Your task to perform on an android device: stop showing notifications on the lock screen Image 0: 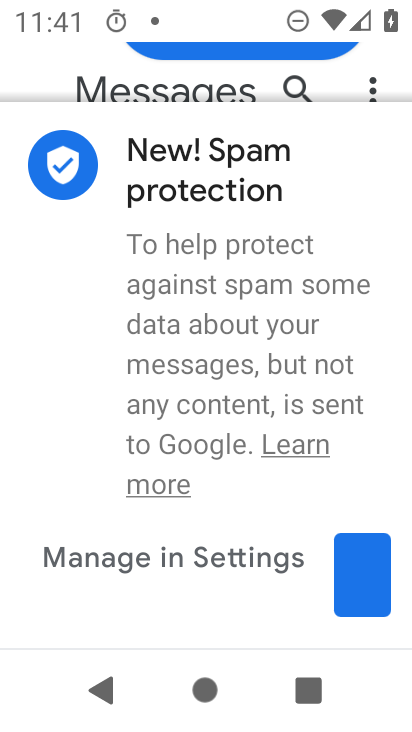
Step 0: press back button
Your task to perform on an android device: stop showing notifications on the lock screen Image 1: 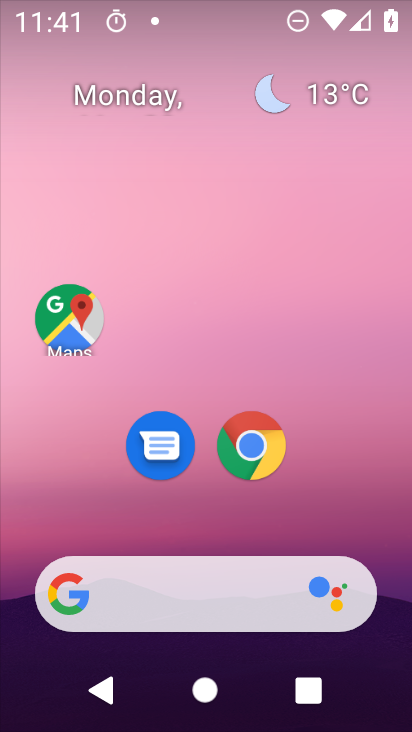
Step 1: drag from (214, 541) to (237, 155)
Your task to perform on an android device: stop showing notifications on the lock screen Image 2: 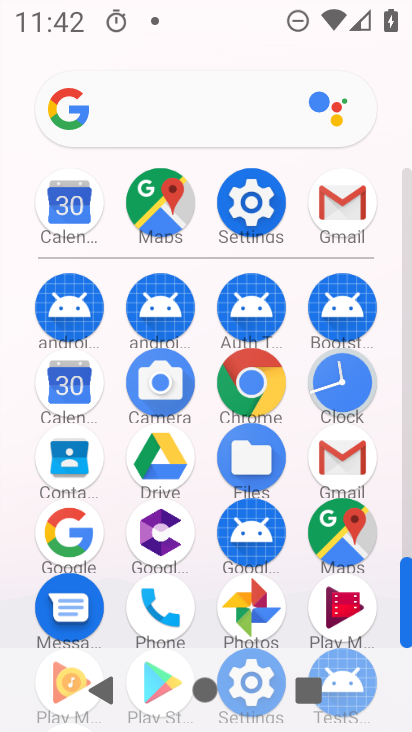
Step 2: click (263, 197)
Your task to perform on an android device: stop showing notifications on the lock screen Image 3: 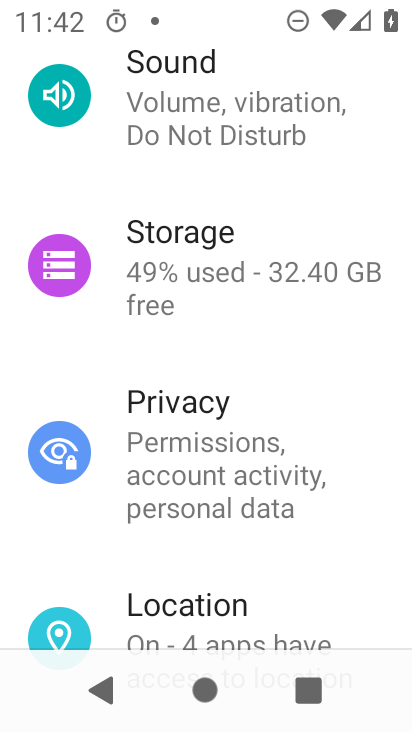
Step 3: drag from (279, 119) to (253, 626)
Your task to perform on an android device: stop showing notifications on the lock screen Image 4: 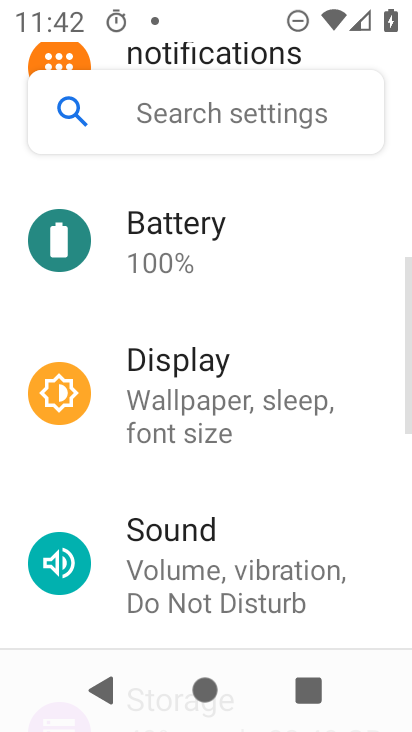
Step 4: drag from (248, 216) to (244, 703)
Your task to perform on an android device: stop showing notifications on the lock screen Image 5: 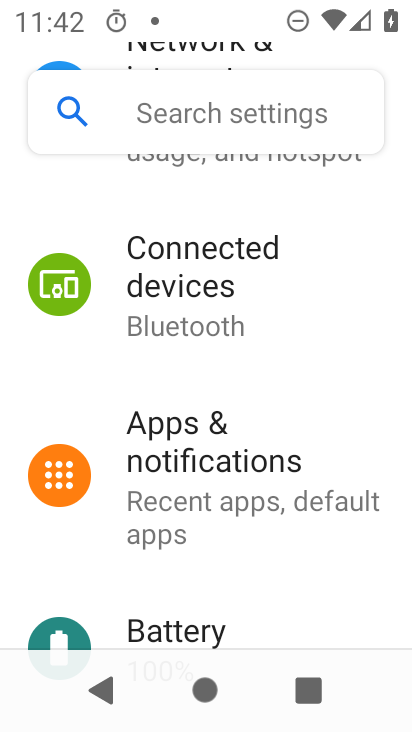
Step 5: click (220, 488)
Your task to perform on an android device: stop showing notifications on the lock screen Image 6: 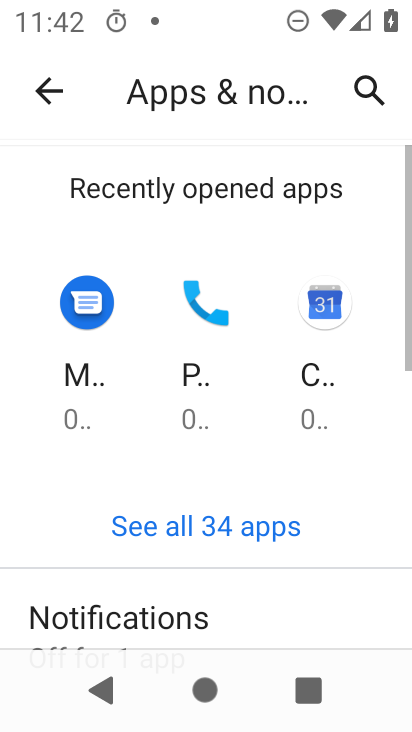
Step 6: drag from (180, 590) to (296, 91)
Your task to perform on an android device: stop showing notifications on the lock screen Image 7: 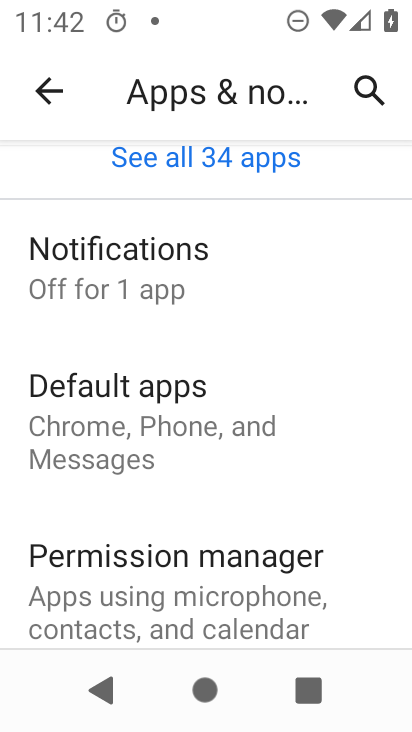
Step 7: drag from (195, 577) to (232, 684)
Your task to perform on an android device: stop showing notifications on the lock screen Image 8: 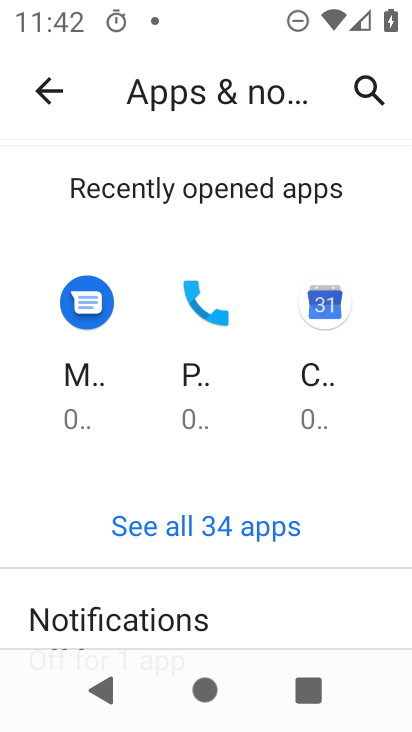
Step 8: click (195, 628)
Your task to perform on an android device: stop showing notifications on the lock screen Image 9: 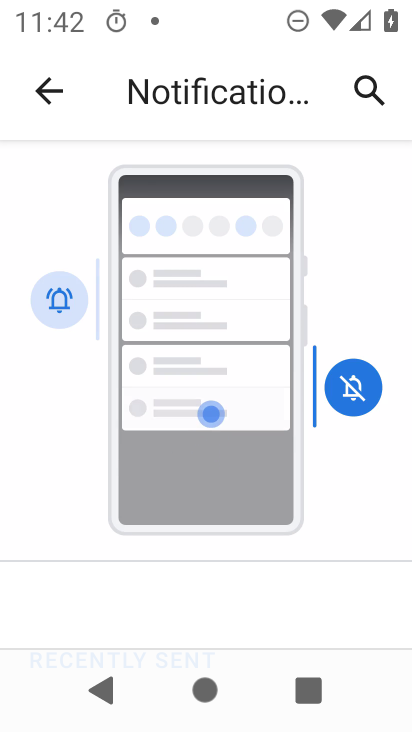
Step 9: drag from (189, 585) to (354, 112)
Your task to perform on an android device: stop showing notifications on the lock screen Image 10: 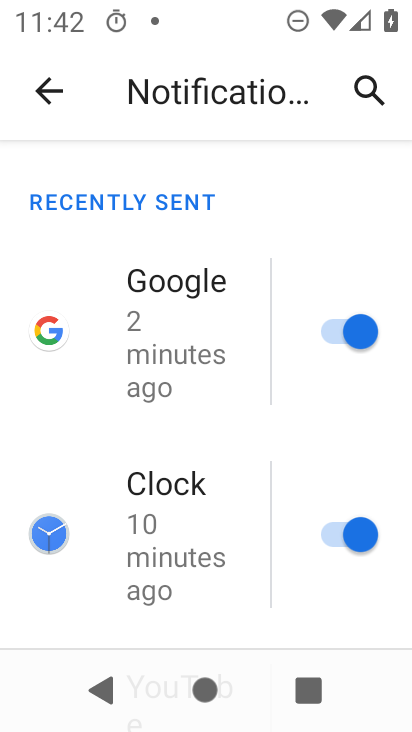
Step 10: drag from (154, 575) to (226, 206)
Your task to perform on an android device: stop showing notifications on the lock screen Image 11: 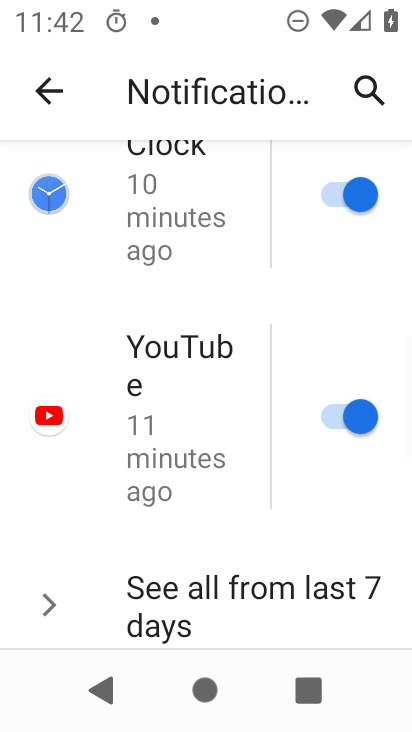
Step 11: drag from (242, 199) to (154, 670)
Your task to perform on an android device: stop showing notifications on the lock screen Image 12: 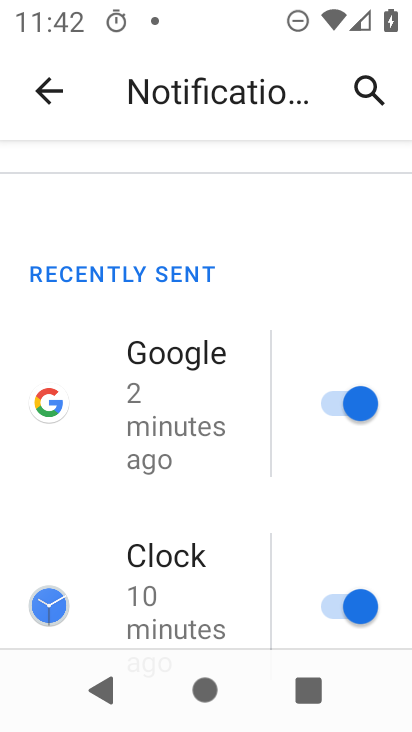
Step 12: drag from (142, 211) to (228, 685)
Your task to perform on an android device: stop showing notifications on the lock screen Image 13: 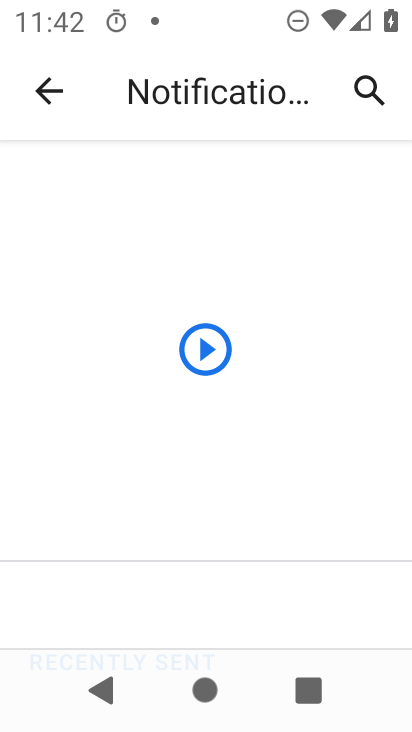
Step 13: drag from (191, 258) to (160, 561)
Your task to perform on an android device: stop showing notifications on the lock screen Image 14: 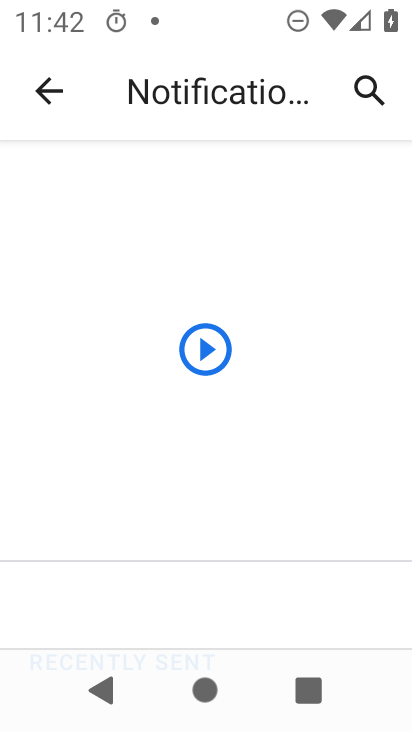
Step 14: click (49, 87)
Your task to perform on an android device: stop showing notifications on the lock screen Image 15: 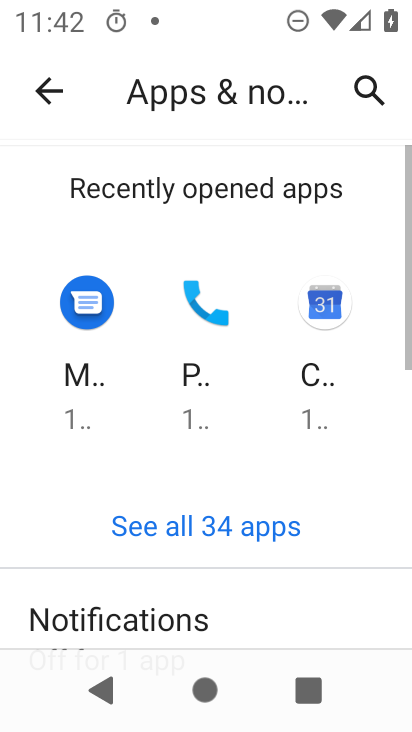
Step 15: drag from (234, 568) to (269, 226)
Your task to perform on an android device: stop showing notifications on the lock screen Image 16: 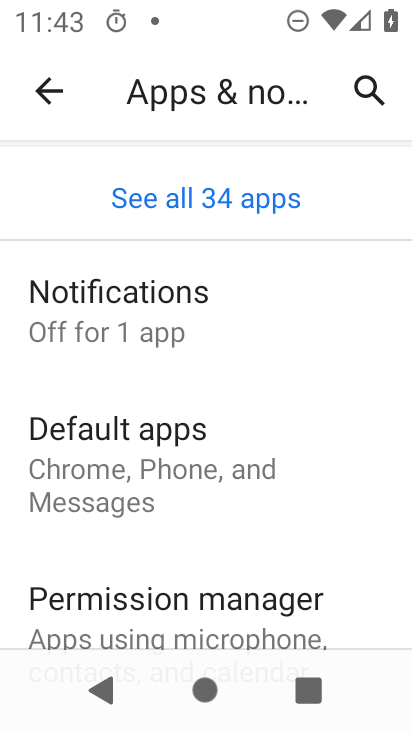
Step 16: drag from (131, 549) to (250, 137)
Your task to perform on an android device: stop showing notifications on the lock screen Image 17: 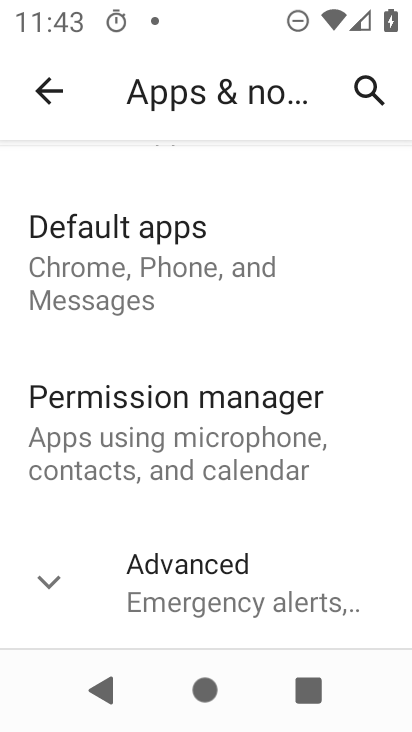
Step 17: drag from (171, 543) to (240, 589)
Your task to perform on an android device: stop showing notifications on the lock screen Image 18: 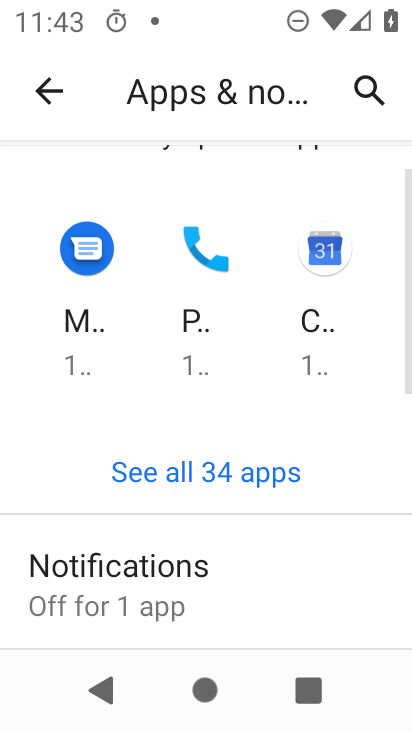
Step 18: click (173, 580)
Your task to perform on an android device: stop showing notifications on the lock screen Image 19: 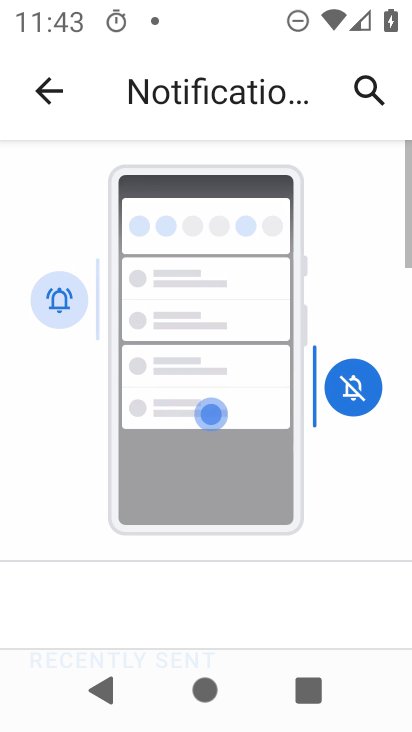
Step 19: drag from (212, 530) to (265, 102)
Your task to perform on an android device: stop showing notifications on the lock screen Image 20: 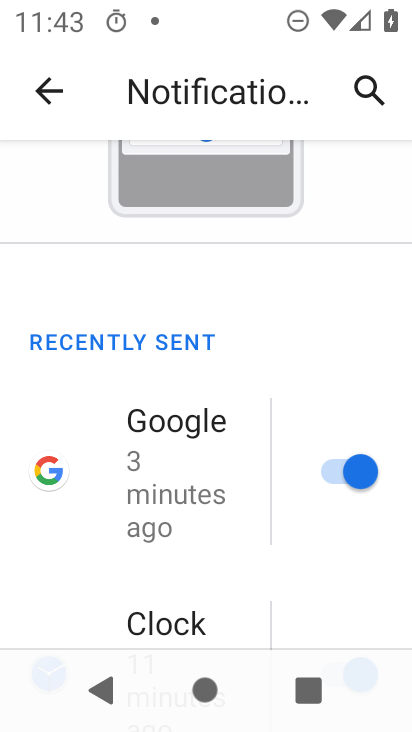
Step 20: drag from (237, 588) to (242, 86)
Your task to perform on an android device: stop showing notifications on the lock screen Image 21: 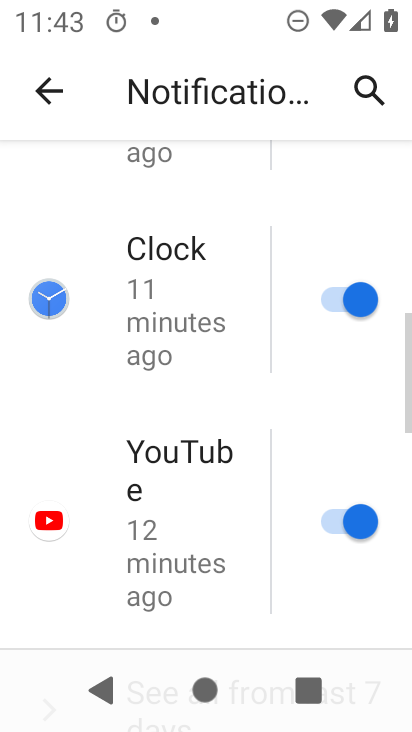
Step 21: drag from (228, 546) to (275, 109)
Your task to perform on an android device: stop showing notifications on the lock screen Image 22: 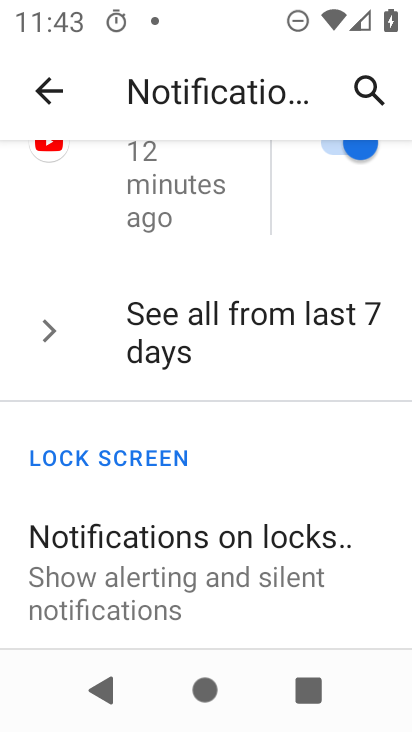
Step 22: click (219, 573)
Your task to perform on an android device: stop showing notifications on the lock screen Image 23: 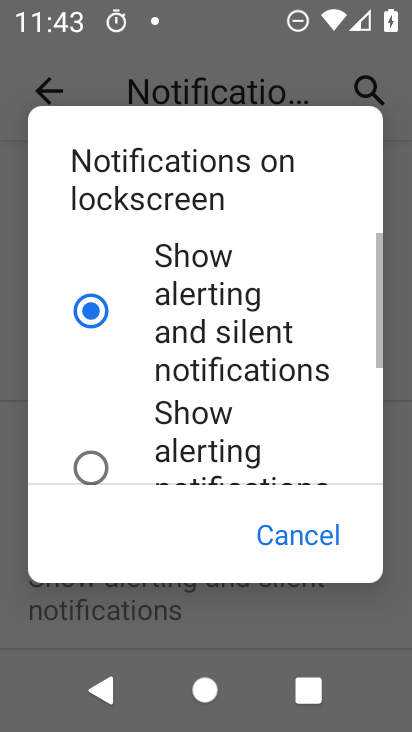
Step 23: drag from (207, 408) to (289, 41)
Your task to perform on an android device: stop showing notifications on the lock screen Image 24: 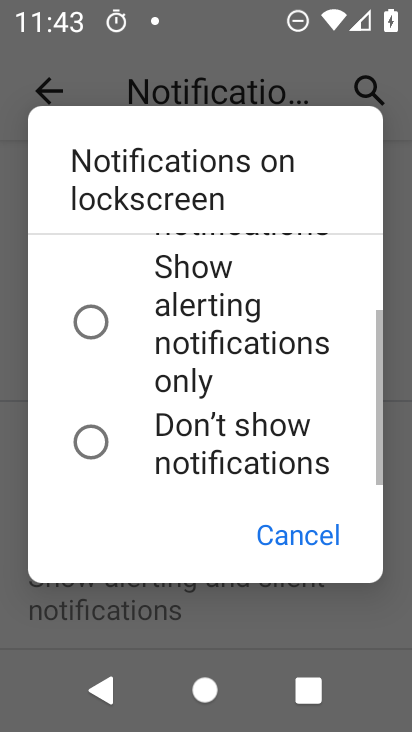
Step 24: click (103, 440)
Your task to perform on an android device: stop showing notifications on the lock screen Image 25: 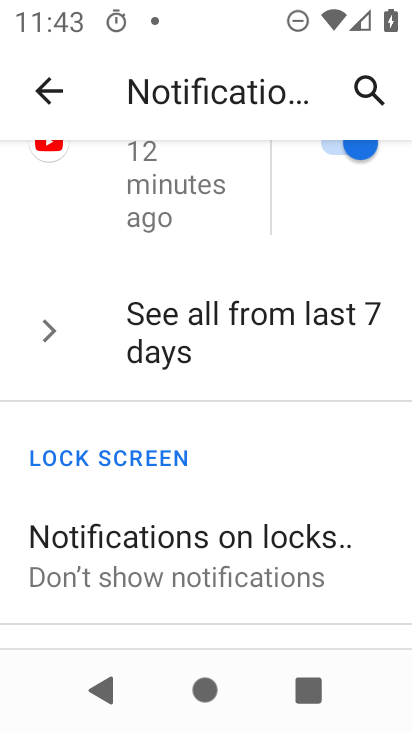
Step 25: task complete